Your task to perform on an android device: Is it going to rain today? Image 0: 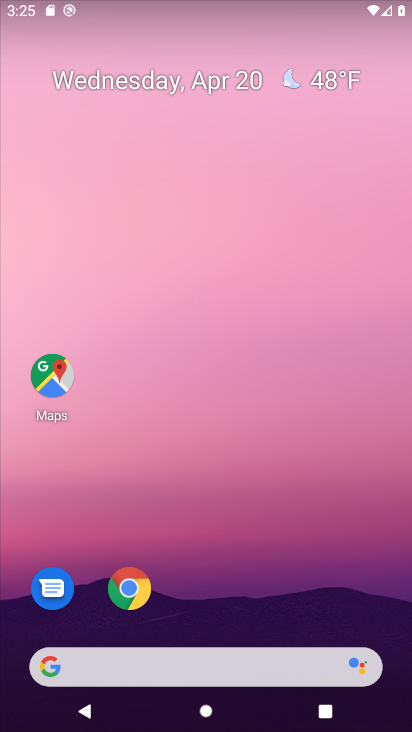
Step 0: click (248, 668)
Your task to perform on an android device: Is it going to rain today? Image 1: 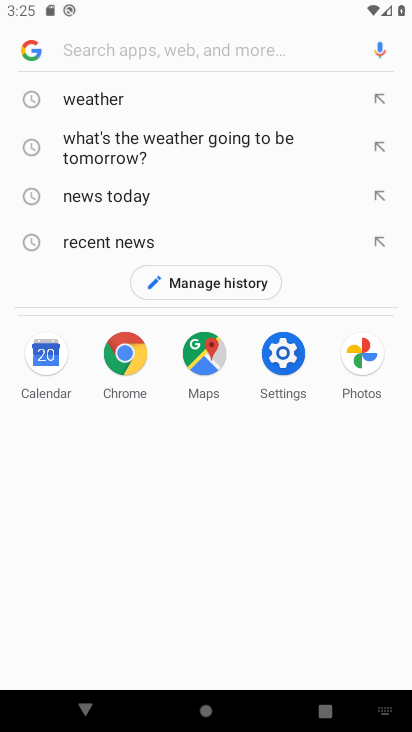
Step 1: click (73, 99)
Your task to perform on an android device: Is it going to rain today? Image 2: 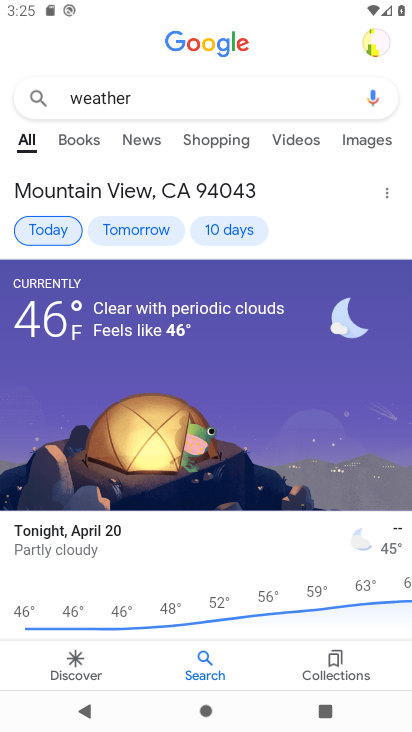
Step 2: task complete